Your task to perform on an android device: Go to eBay Image 0: 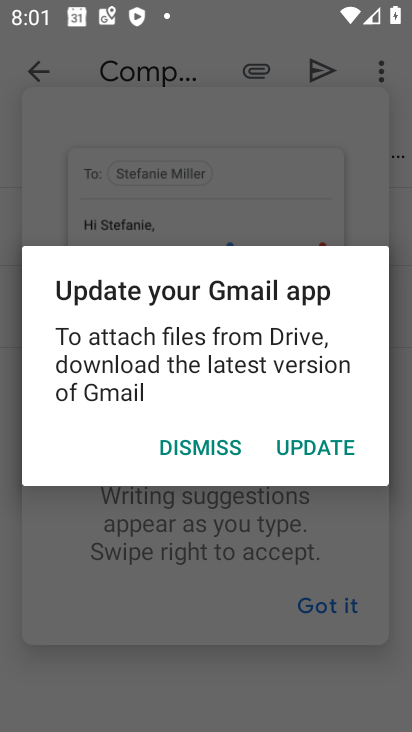
Step 0: press home button
Your task to perform on an android device: Go to eBay Image 1: 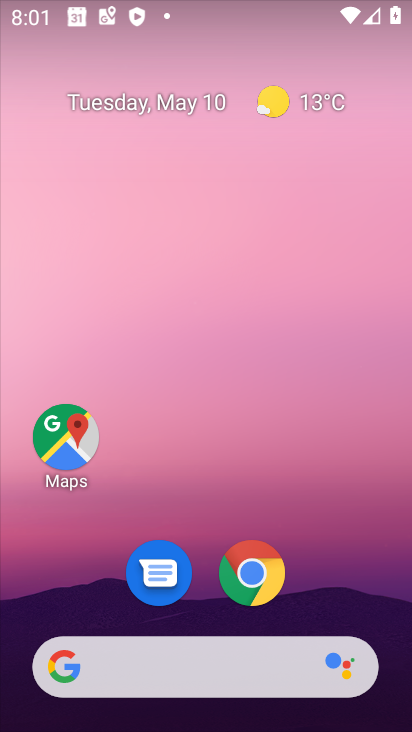
Step 1: click (256, 583)
Your task to perform on an android device: Go to eBay Image 2: 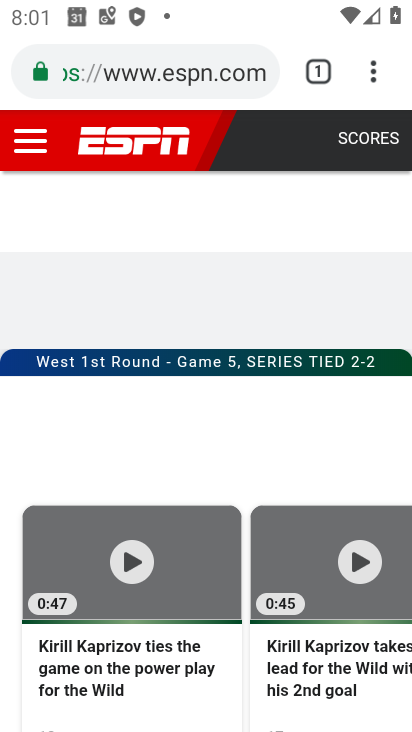
Step 2: click (119, 74)
Your task to perform on an android device: Go to eBay Image 3: 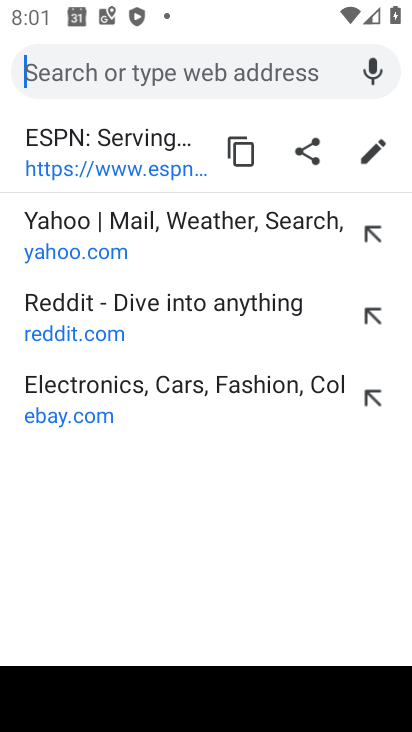
Step 3: click (59, 424)
Your task to perform on an android device: Go to eBay Image 4: 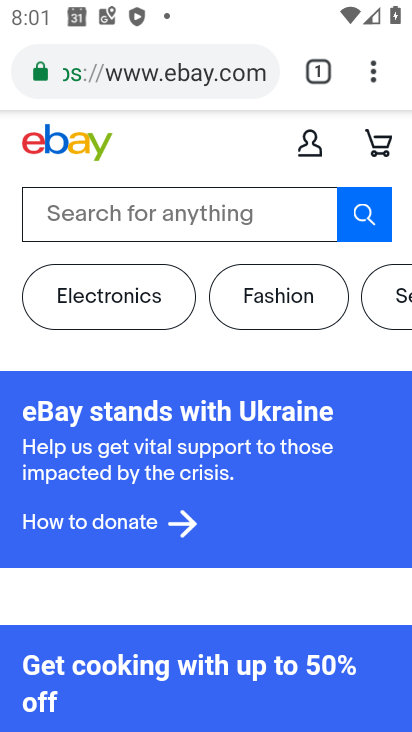
Step 4: task complete